Your task to perform on an android device: stop showing notifications on the lock screen Image 0: 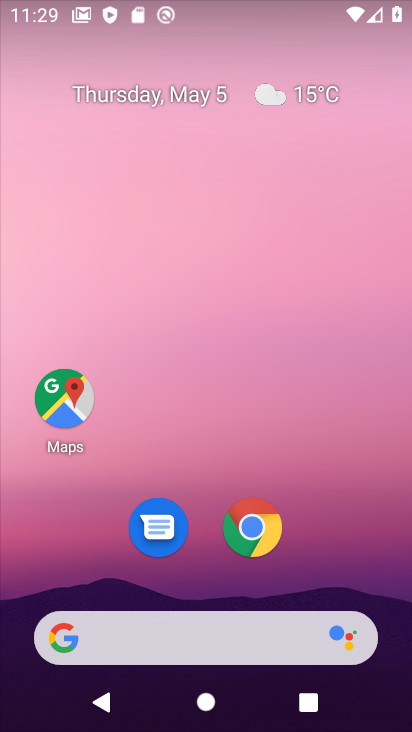
Step 0: drag from (46, 620) to (212, 4)
Your task to perform on an android device: stop showing notifications on the lock screen Image 1: 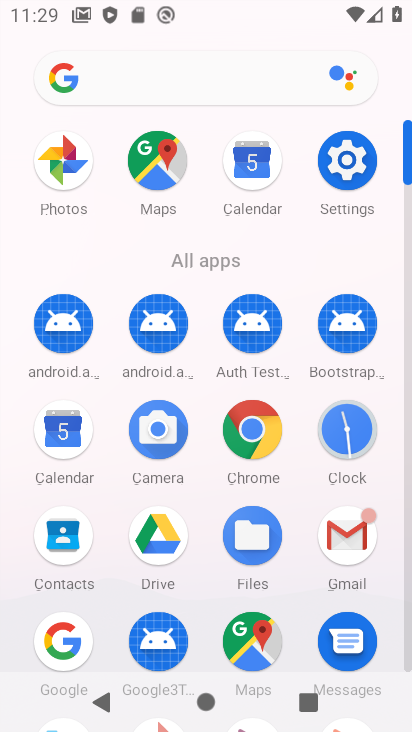
Step 1: click (337, 172)
Your task to perform on an android device: stop showing notifications on the lock screen Image 2: 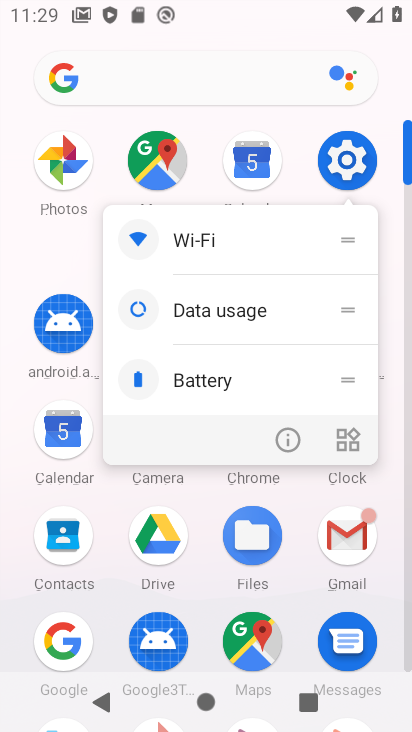
Step 2: click (363, 174)
Your task to perform on an android device: stop showing notifications on the lock screen Image 3: 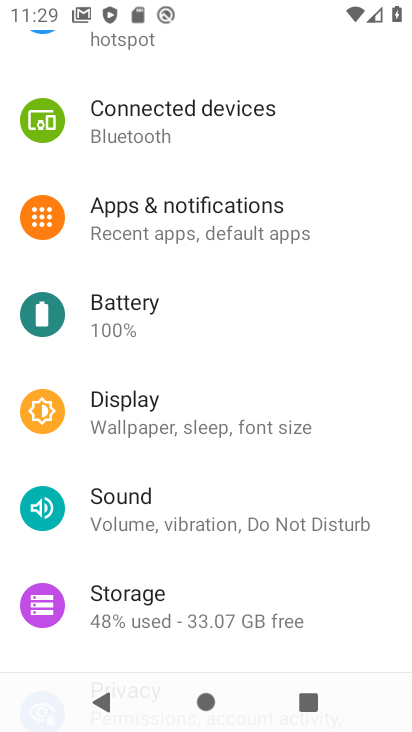
Step 3: click (253, 231)
Your task to perform on an android device: stop showing notifications on the lock screen Image 4: 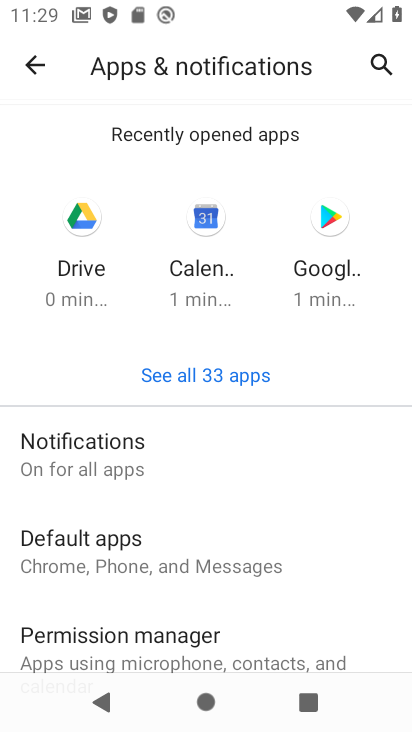
Step 4: drag from (210, 655) to (299, 269)
Your task to perform on an android device: stop showing notifications on the lock screen Image 5: 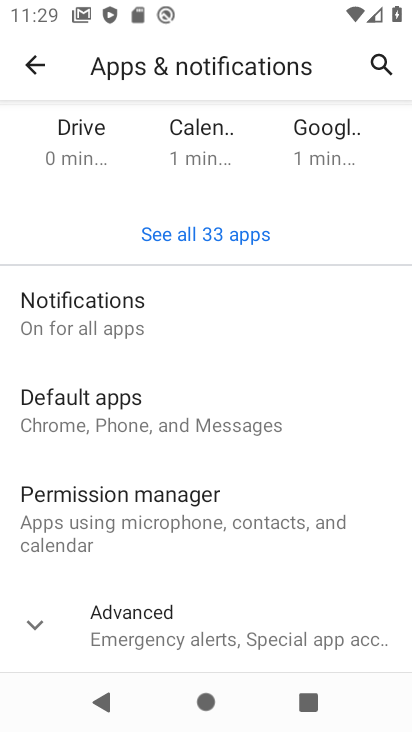
Step 5: click (231, 338)
Your task to perform on an android device: stop showing notifications on the lock screen Image 6: 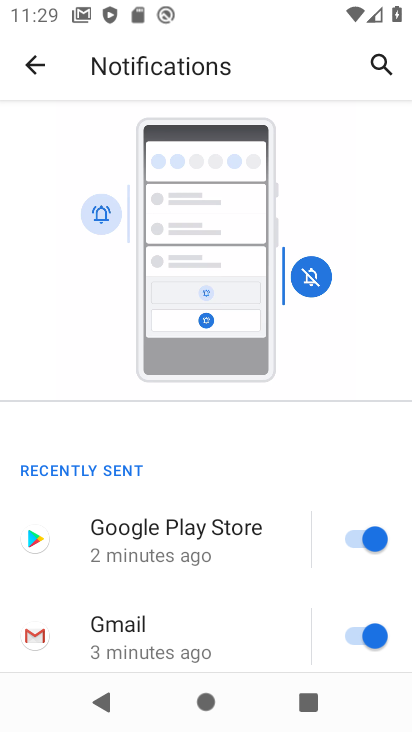
Step 6: drag from (139, 639) to (262, 127)
Your task to perform on an android device: stop showing notifications on the lock screen Image 7: 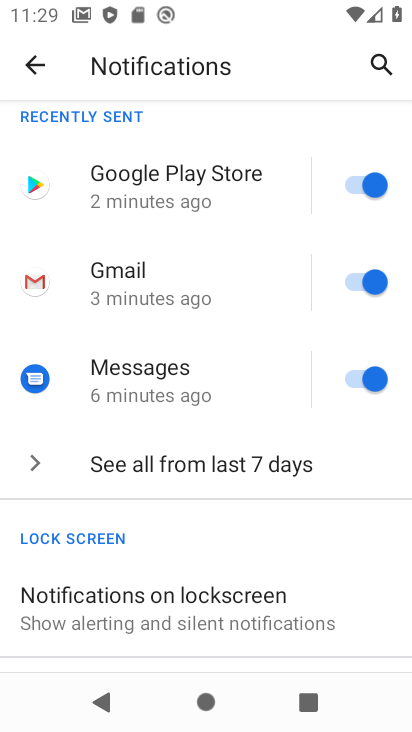
Step 7: drag from (121, 567) to (189, 255)
Your task to perform on an android device: stop showing notifications on the lock screen Image 8: 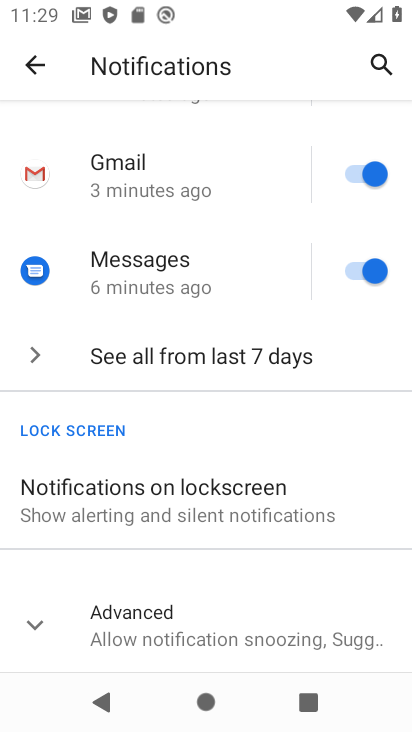
Step 8: click (152, 506)
Your task to perform on an android device: stop showing notifications on the lock screen Image 9: 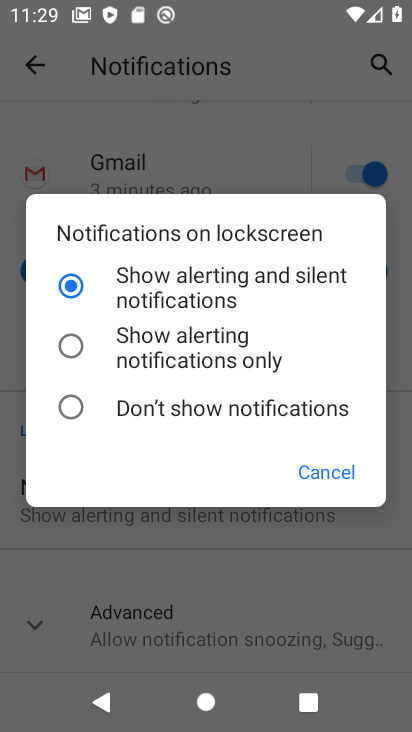
Step 9: click (183, 409)
Your task to perform on an android device: stop showing notifications on the lock screen Image 10: 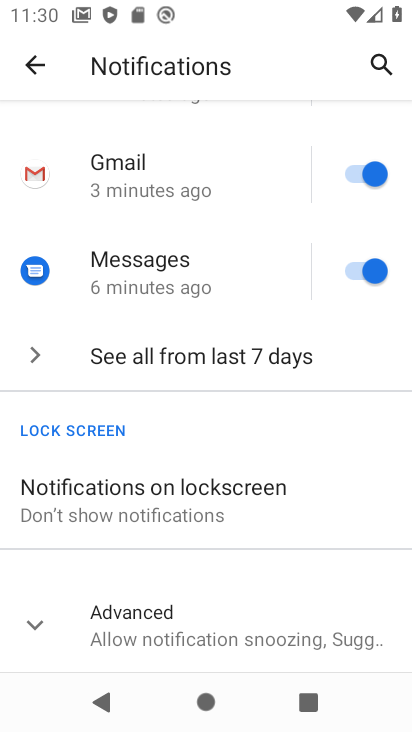
Step 10: task complete